Your task to perform on an android device: Open my contact list Image 0: 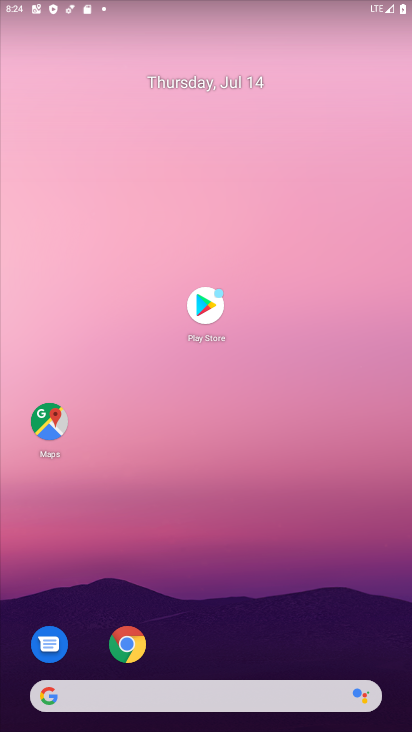
Step 0: drag from (193, 654) to (230, 188)
Your task to perform on an android device: Open my contact list Image 1: 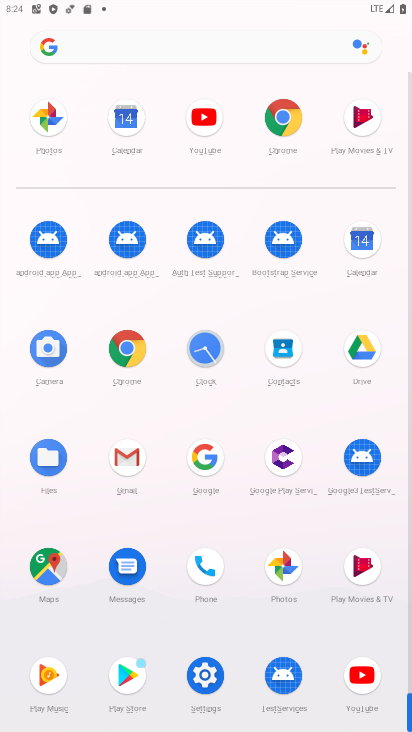
Step 1: click (285, 341)
Your task to perform on an android device: Open my contact list Image 2: 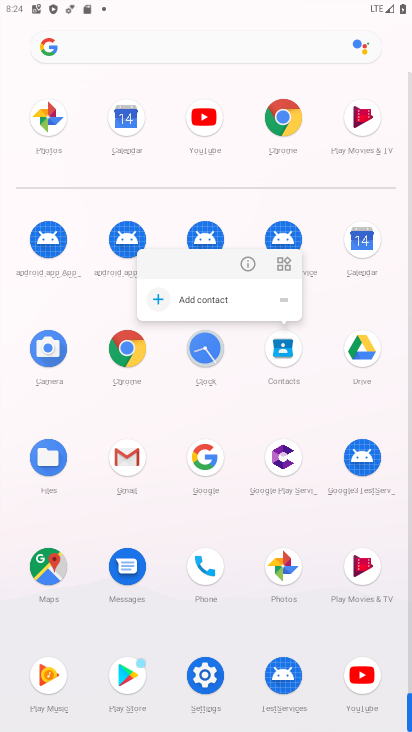
Step 2: click (245, 255)
Your task to perform on an android device: Open my contact list Image 3: 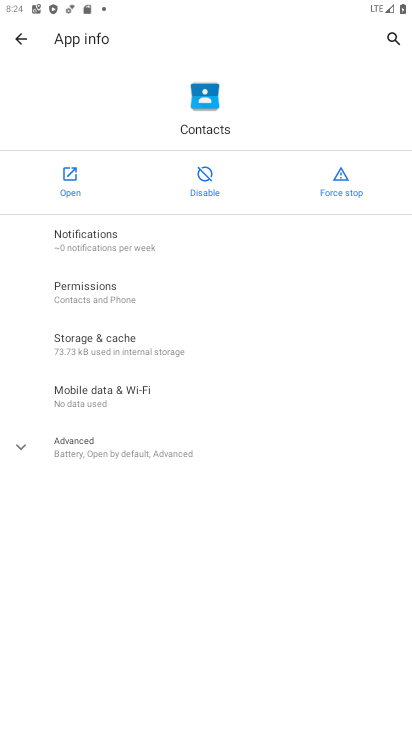
Step 3: click (64, 178)
Your task to perform on an android device: Open my contact list Image 4: 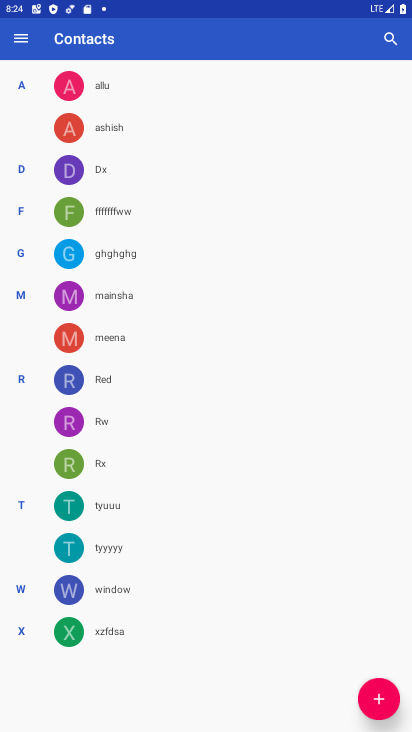
Step 4: task complete